Your task to perform on an android device: Set the phone to "Do not disturb". Image 0: 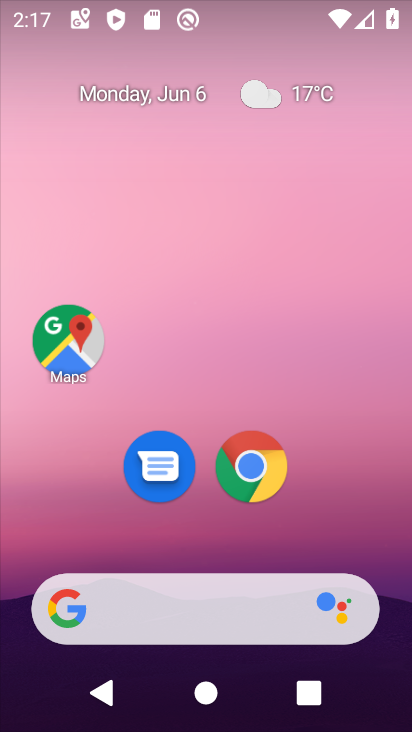
Step 0: drag from (202, 549) to (205, 12)
Your task to perform on an android device: Set the phone to "Do not disturb". Image 1: 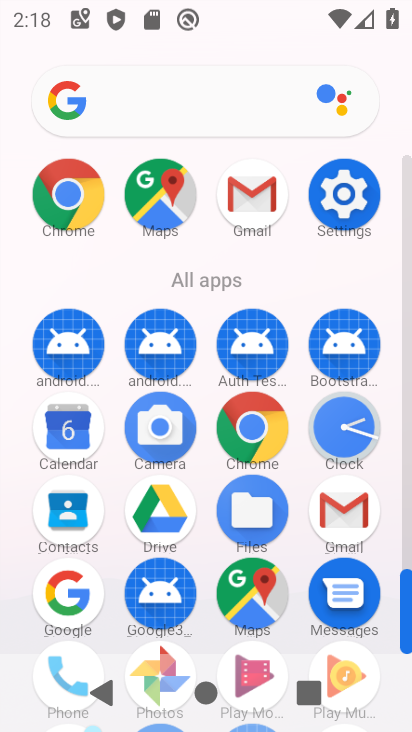
Step 1: click (341, 199)
Your task to perform on an android device: Set the phone to "Do not disturb". Image 2: 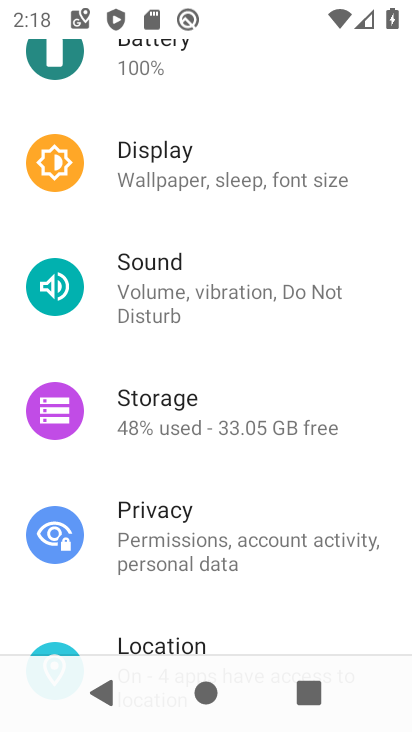
Step 2: click (173, 289)
Your task to perform on an android device: Set the phone to "Do not disturb". Image 3: 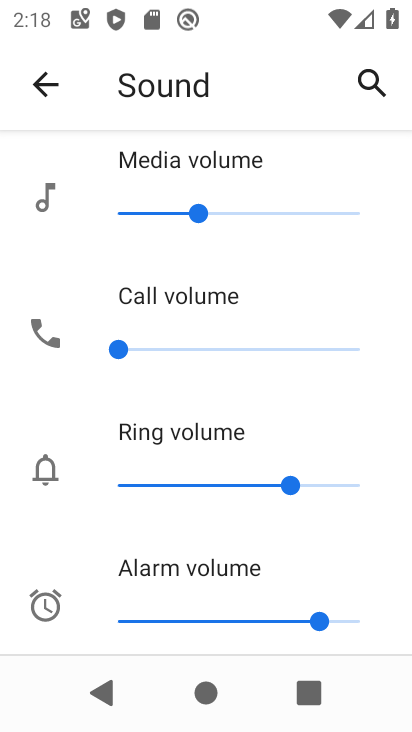
Step 3: drag from (217, 586) to (240, 218)
Your task to perform on an android device: Set the phone to "Do not disturb". Image 4: 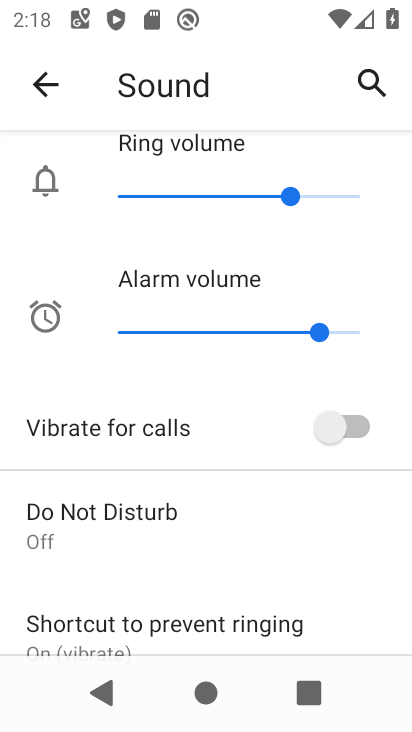
Step 4: drag from (161, 570) to (240, 154)
Your task to perform on an android device: Set the phone to "Do not disturb". Image 5: 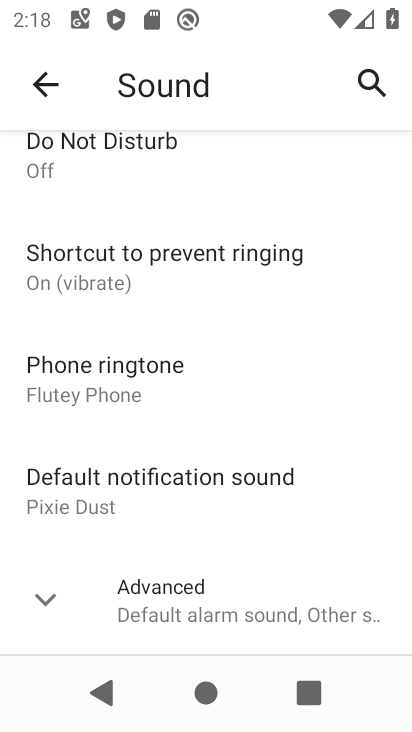
Step 5: drag from (183, 561) to (255, 147)
Your task to perform on an android device: Set the phone to "Do not disturb". Image 6: 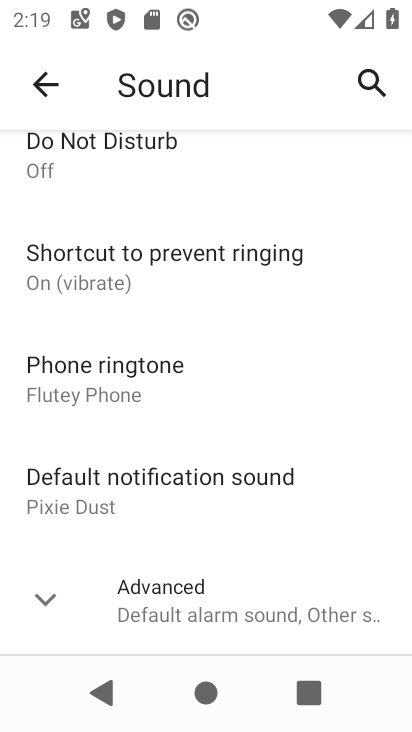
Step 6: click (97, 602)
Your task to perform on an android device: Set the phone to "Do not disturb". Image 7: 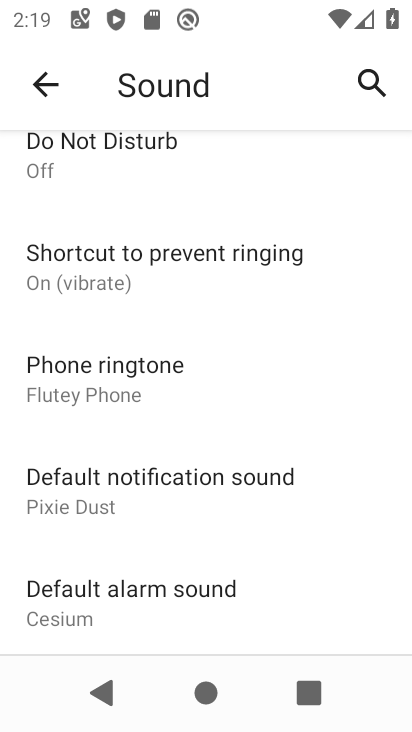
Step 7: drag from (264, 629) to (255, 148)
Your task to perform on an android device: Set the phone to "Do not disturb". Image 8: 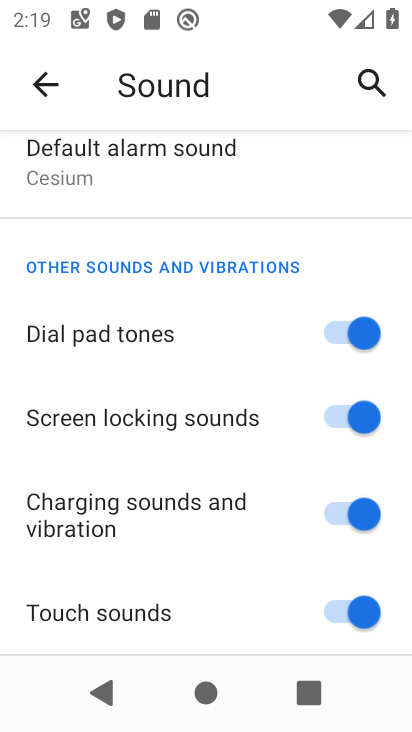
Step 8: drag from (143, 328) to (166, 619)
Your task to perform on an android device: Set the phone to "Do not disturb". Image 9: 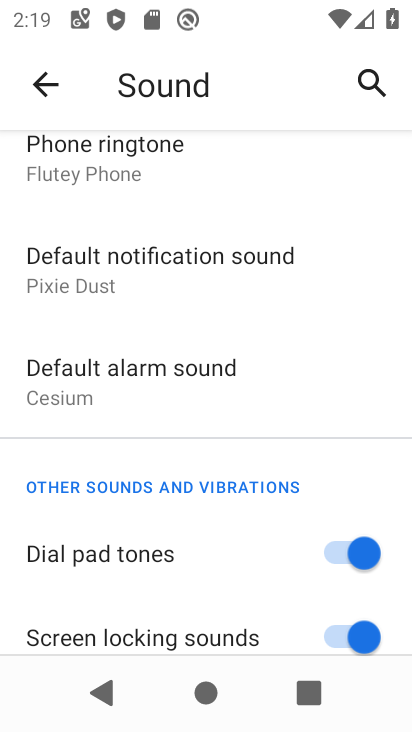
Step 9: drag from (159, 333) to (194, 727)
Your task to perform on an android device: Set the phone to "Do not disturb". Image 10: 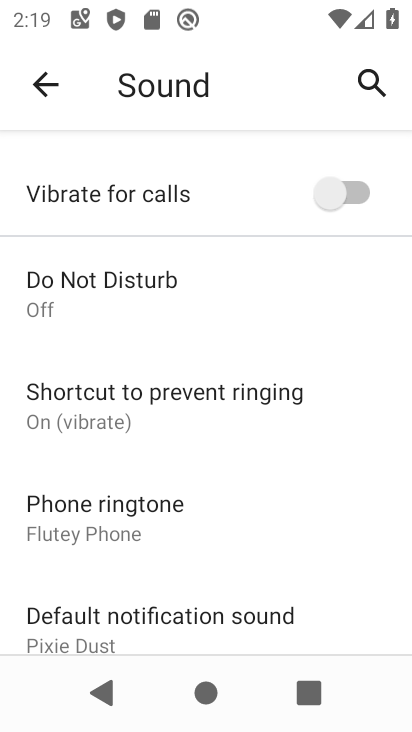
Step 10: click (114, 305)
Your task to perform on an android device: Set the phone to "Do not disturb". Image 11: 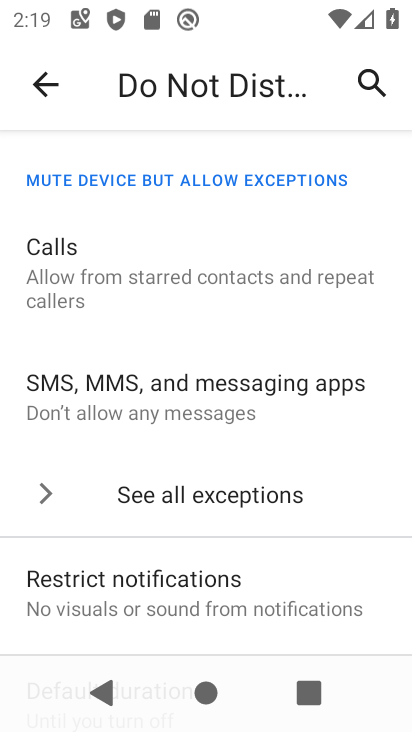
Step 11: drag from (147, 570) to (167, 234)
Your task to perform on an android device: Set the phone to "Do not disturb". Image 12: 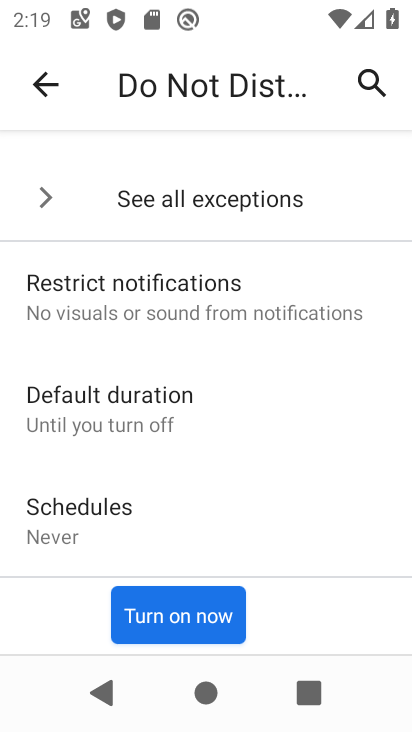
Step 12: click (154, 611)
Your task to perform on an android device: Set the phone to "Do not disturb". Image 13: 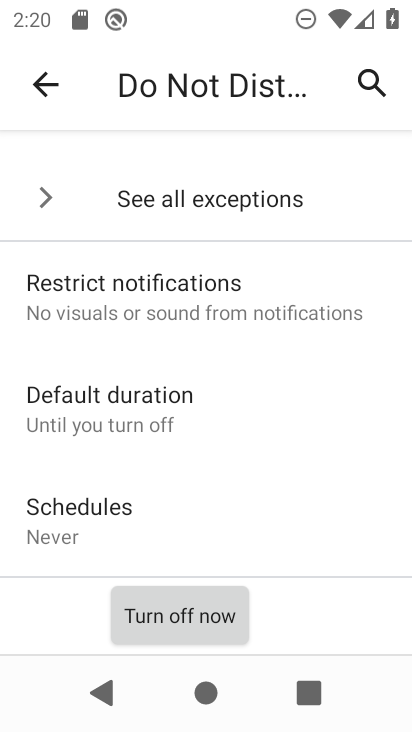
Step 13: task complete